Your task to perform on an android device: Search for Mexican restaurants on Maps Image 0: 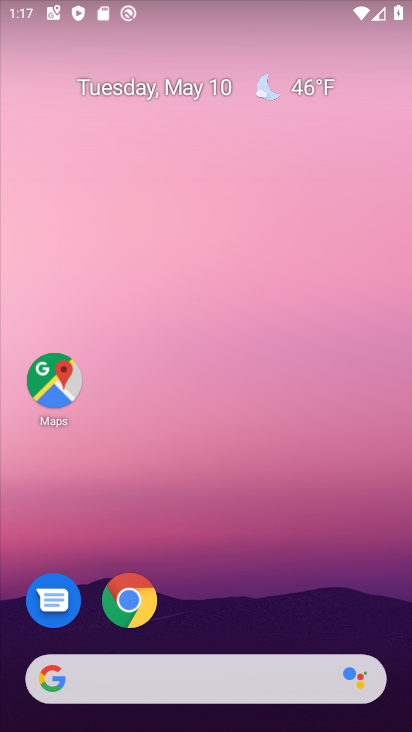
Step 0: click (70, 371)
Your task to perform on an android device: Search for Mexican restaurants on Maps Image 1: 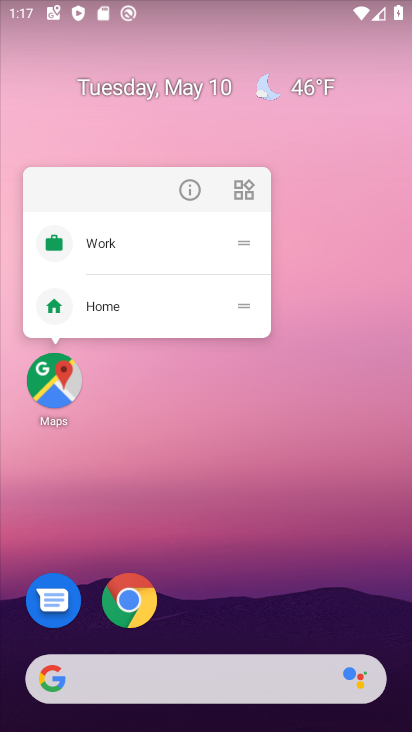
Step 1: click (54, 391)
Your task to perform on an android device: Search for Mexican restaurants on Maps Image 2: 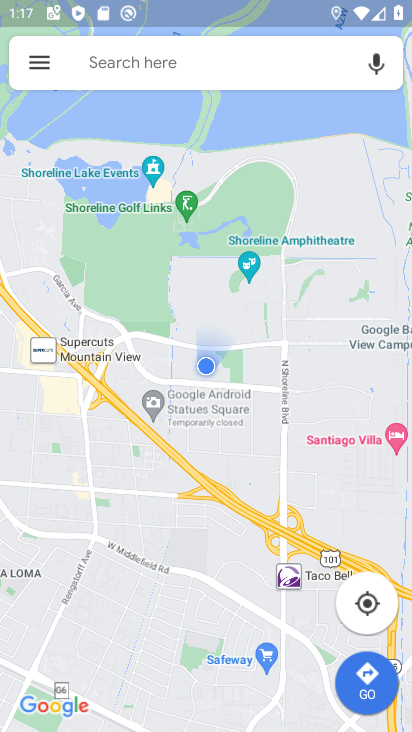
Step 2: click (260, 58)
Your task to perform on an android device: Search for Mexican restaurants on Maps Image 3: 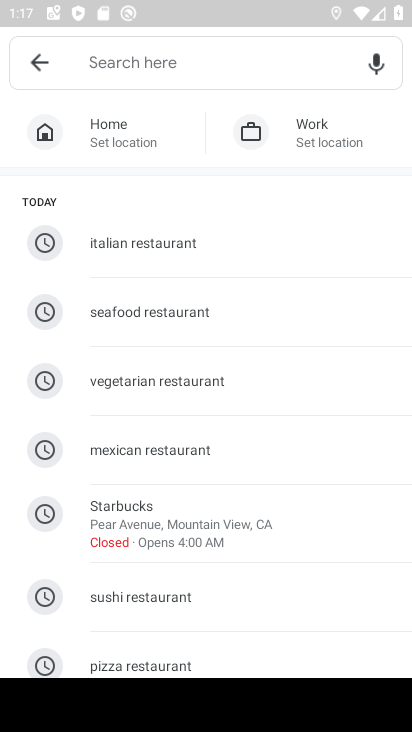
Step 3: click (147, 453)
Your task to perform on an android device: Search for Mexican restaurants on Maps Image 4: 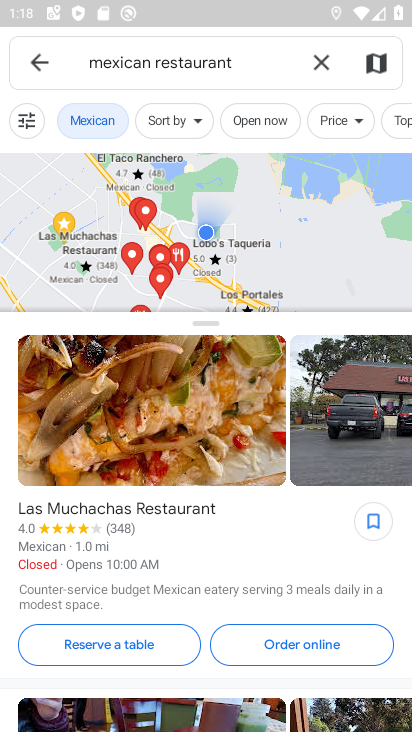
Step 4: task complete